Your task to perform on an android device: turn on translation in the chrome app Image 0: 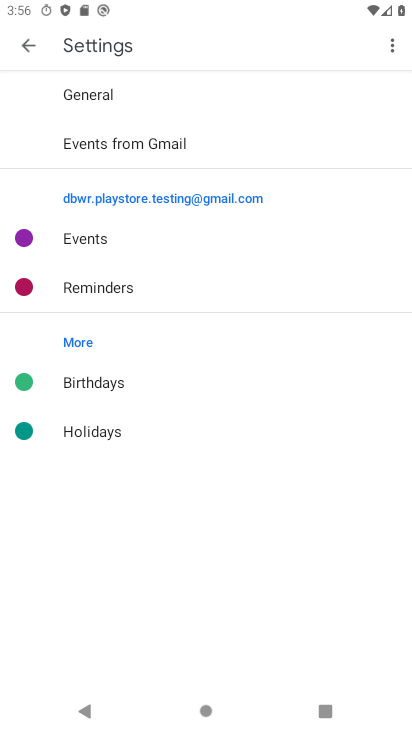
Step 0: press home button
Your task to perform on an android device: turn on translation in the chrome app Image 1: 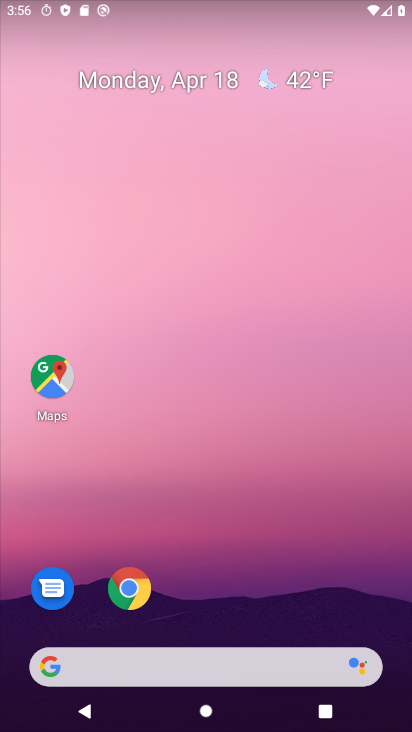
Step 1: click (133, 592)
Your task to perform on an android device: turn on translation in the chrome app Image 2: 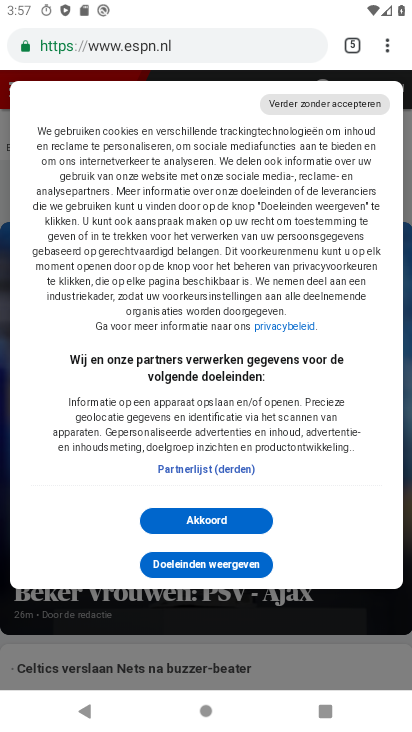
Step 2: click (384, 44)
Your task to perform on an android device: turn on translation in the chrome app Image 3: 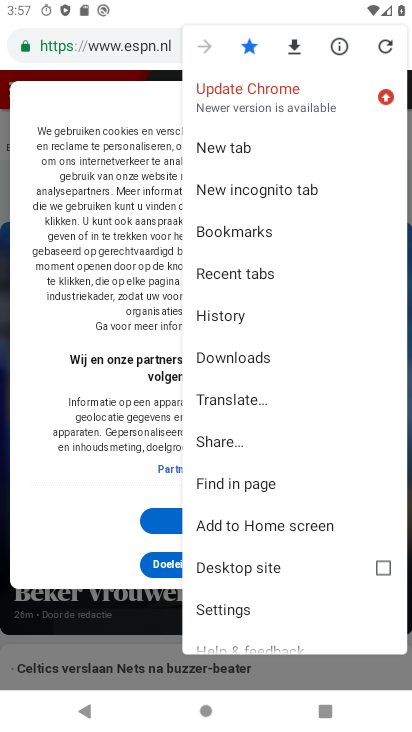
Step 3: click (226, 602)
Your task to perform on an android device: turn on translation in the chrome app Image 4: 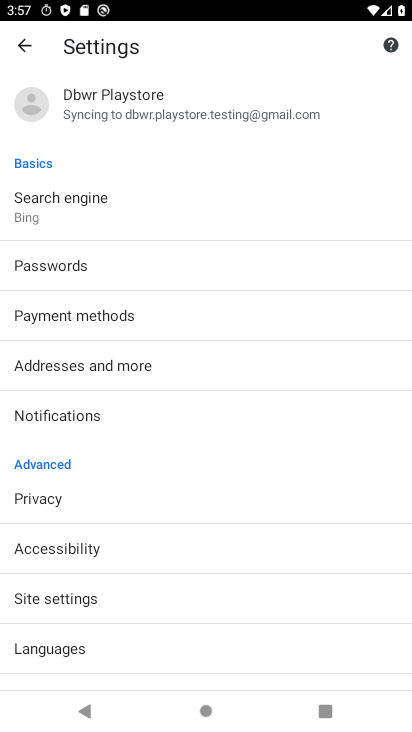
Step 4: click (106, 651)
Your task to perform on an android device: turn on translation in the chrome app Image 5: 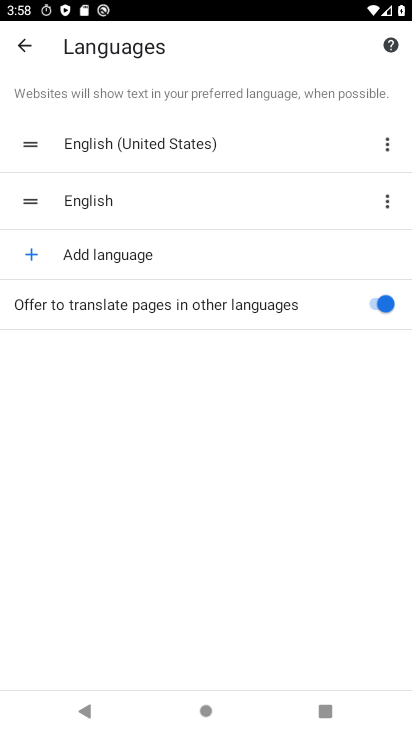
Step 5: task complete